Your task to perform on an android device: check storage Image 0: 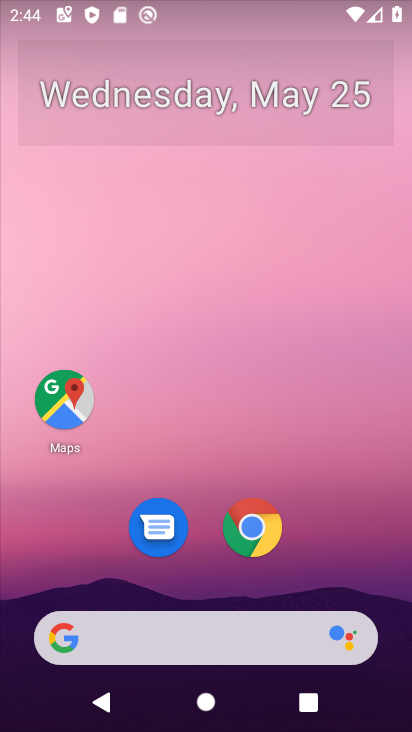
Step 0: drag from (163, 550) to (218, 49)
Your task to perform on an android device: check storage Image 1: 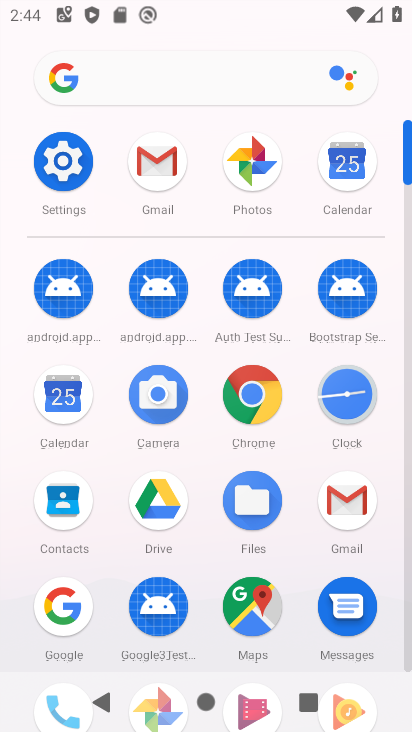
Step 1: click (51, 166)
Your task to perform on an android device: check storage Image 2: 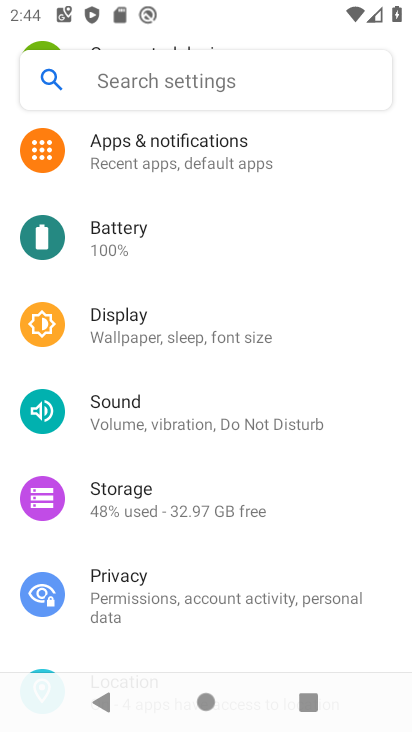
Step 2: click (135, 493)
Your task to perform on an android device: check storage Image 3: 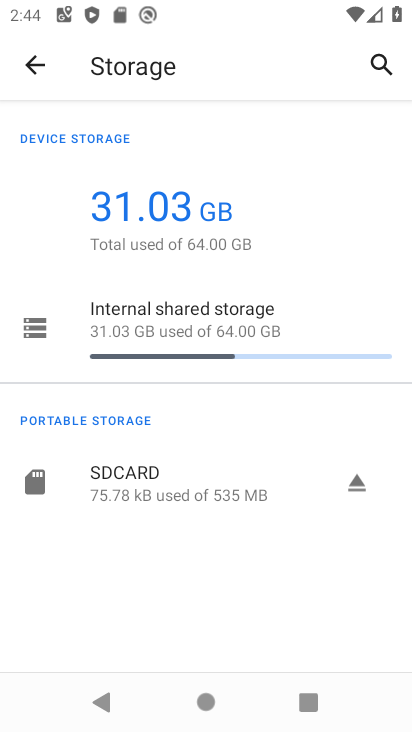
Step 3: task complete